Your task to perform on an android device: Show me popular videos on Youtube Image 0: 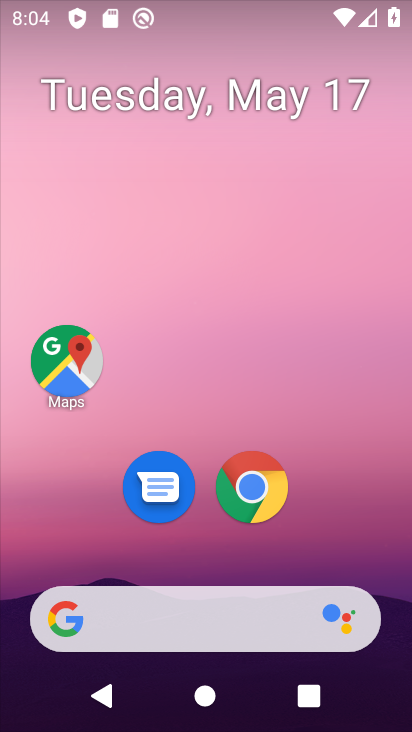
Step 0: press home button
Your task to perform on an android device: Show me popular videos on Youtube Image 1: 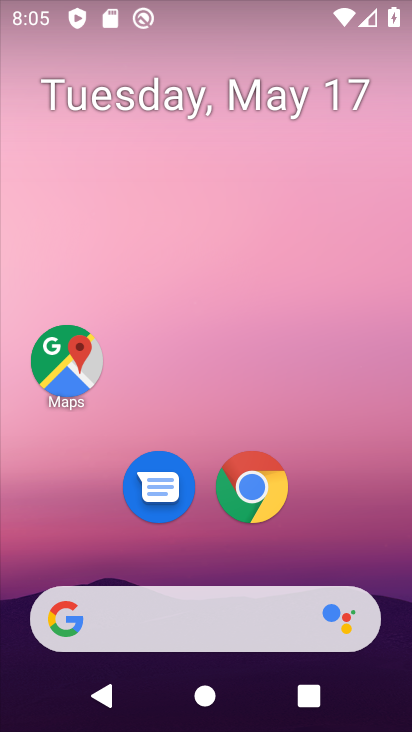
Step 1: drag from (247, 555) to (258, 84)
Your task to perform on an android device: Show me popular videos on Youtube Image 2: 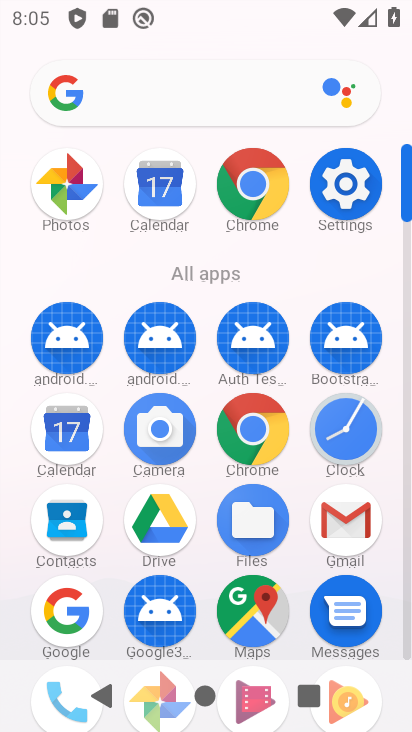
Step 2: drag from (207, 508) to (222, 314)
Your task to perform on an android device: Show me popular videos on Youtube Image 3: 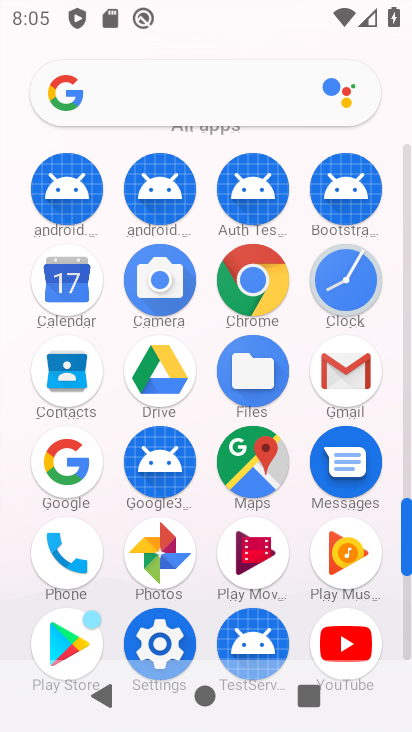
Step 3: click (359, 633)
Your task to perform on an android device: Show me popular videos on Youtube Image 4: 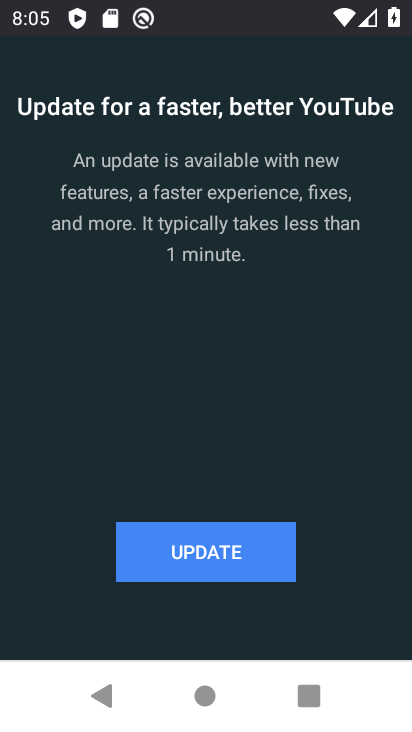
Step 4: click (201, 556)
Your task to perform on an android device: Show me popular videos on Youtube Image 5: 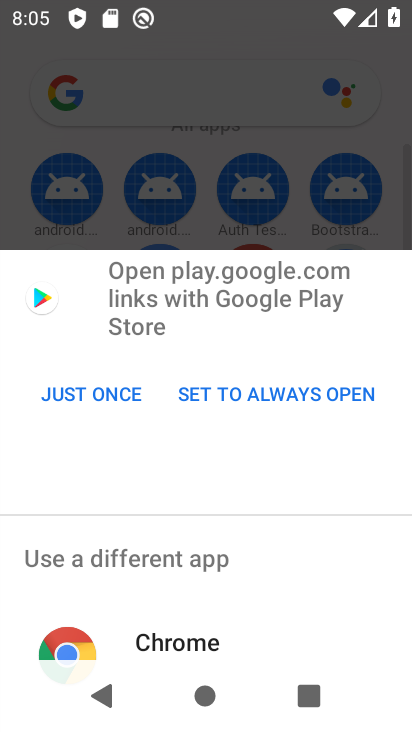
Step 5: click (117, 387)
Your task to perform on an android device: Show me popular videos on Youtube Image 6: 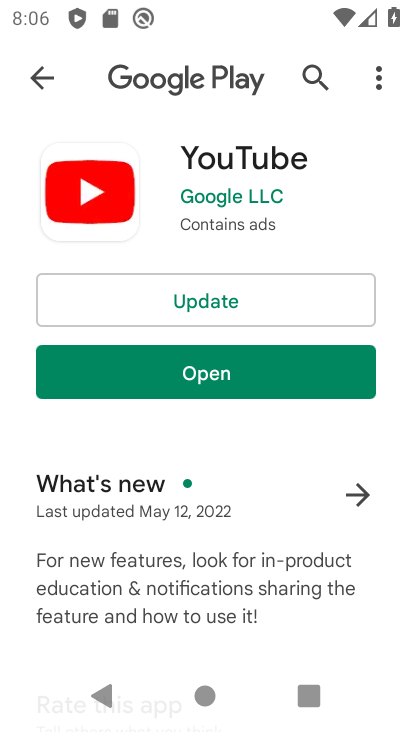
Step 6: click (230, 295)
Your task to perform on an android device: Show me popular videos on Youtube Image 7: 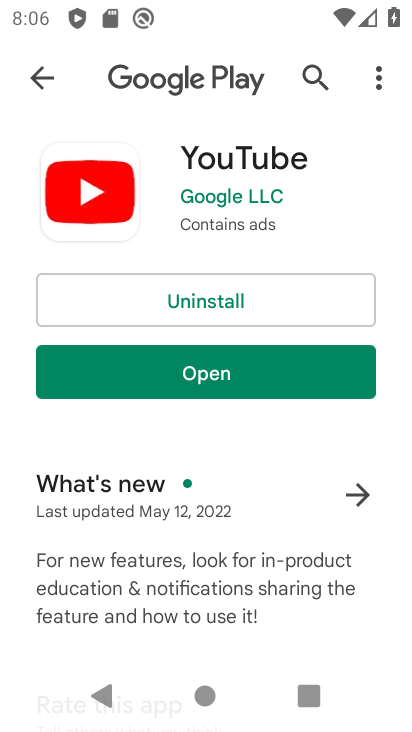
Step 7: click (199, 394)
Your task to perform on an android device: Show me popular videos on Youtube Image 8: 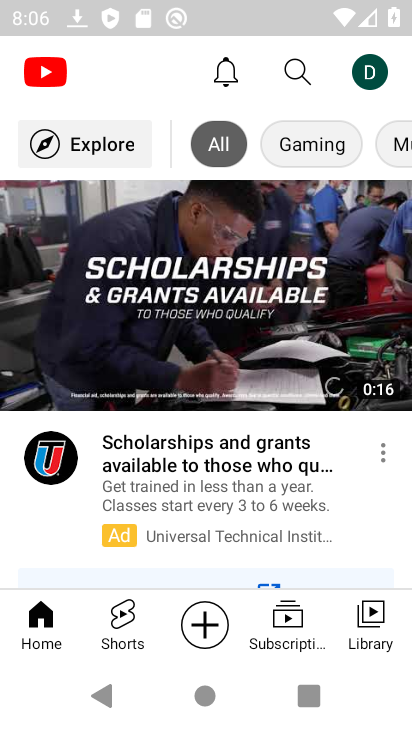
Step 8: click (301, 58)
Your task to perform on an android device: Show me popular videos on Youtube Image 9: 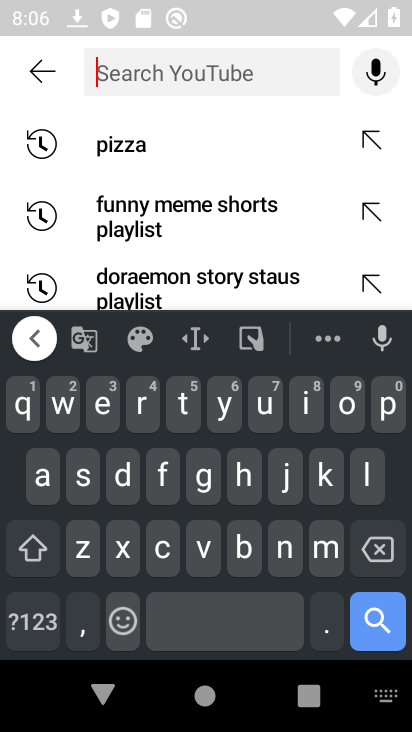
Step 9: click (375, 406)
Your task to perform on an android device: Show me popular videos on Youtube Image 10: 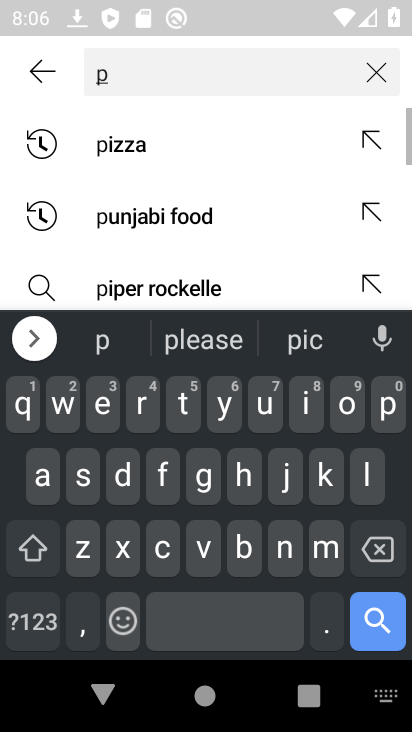
Step 10: click (347, 405)
Your task to perform on an android device: Show me popular videos on Youtube Image 11: 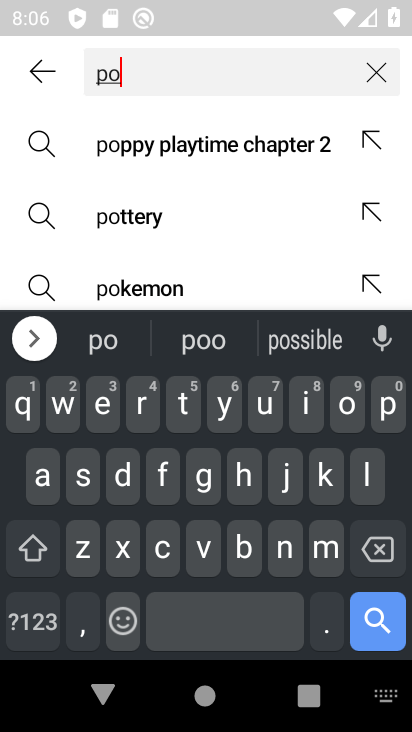
Step 11: click (385, 410)
Your task to perform on an android device: Show me popular videos on Youtube Image 12: 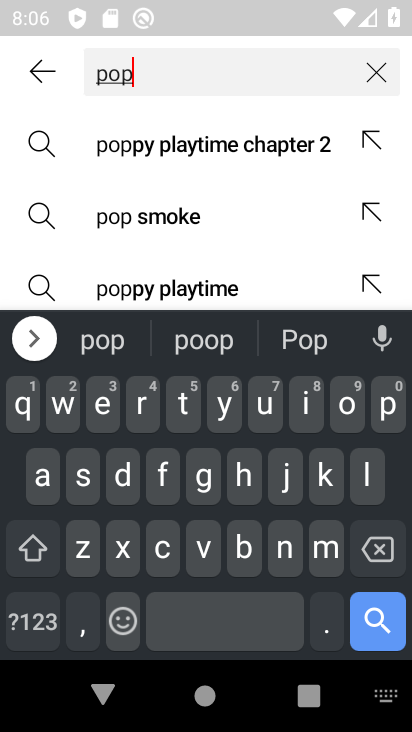
Step 12: click (264, 408)
Your task to perform on an android device: Show me popular videos on Youtube Image 13: 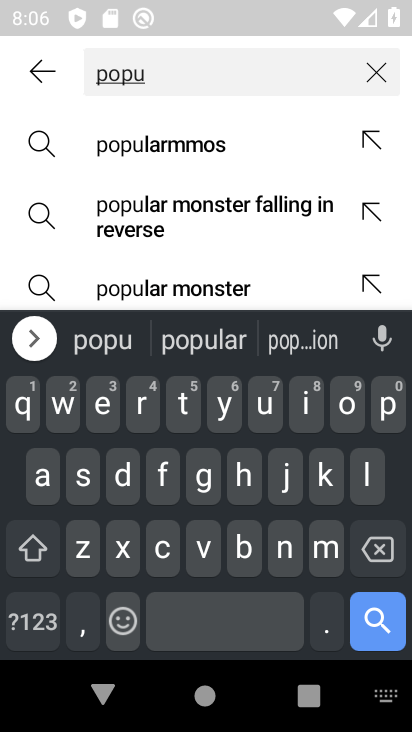
Step 13: click (209, 351)
Your task to perform on an android device: Show me popular videos on Youtube Image 14: 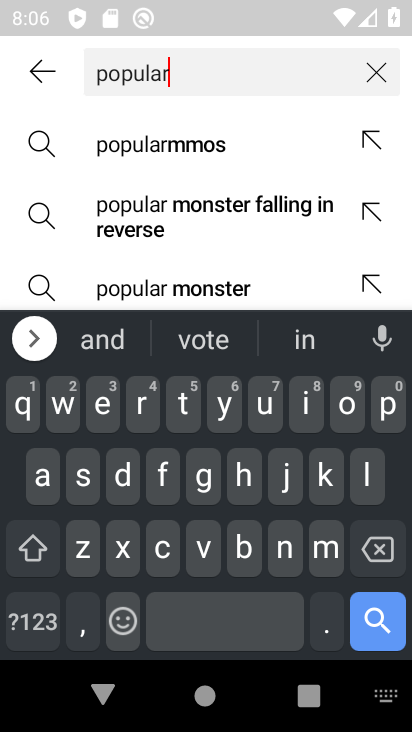
Step 14: click (199, 540)
Your task to perform on an android device: Show me popular videos on Youtube Image 15: 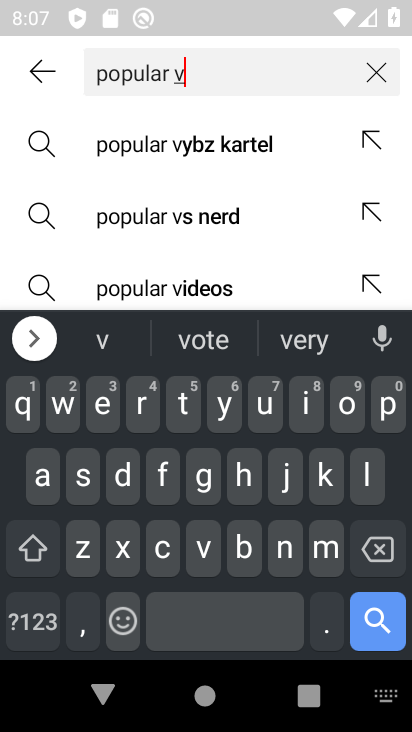
Step 15: click (236, 292)
Your task to perform on an android device: Show me popular videos on Youtube Image 16: 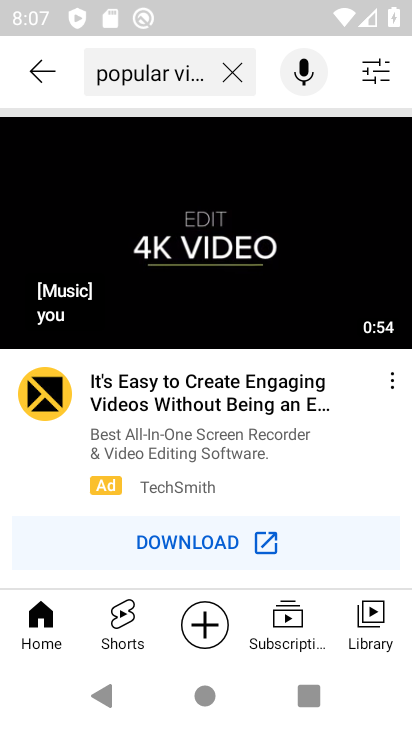
Step 16: task complete